Your task to perform on an android device: Empty the shopping cart on amazon. Add "rayovac triple a" to the cart on amazon, then select checkout. Image 0: 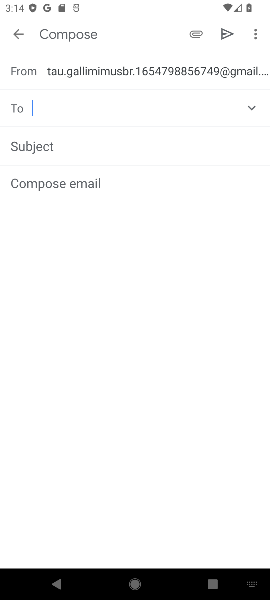
Step 0: press home button
Your task to perform on an android device: Empty the shopping cart on amazon. Add "rayovac triple a" to the cart on amazon, then select checkout. Image 1: 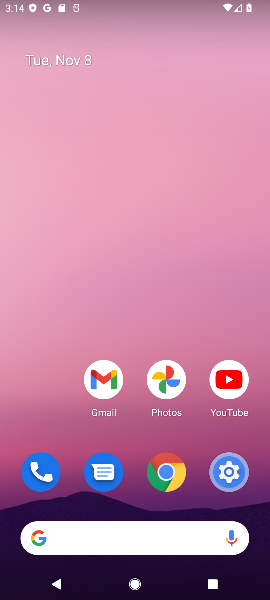
Step 1: click (100, 547)
Your task to perform on an android device: Empty the shopping cart on amazon. Add "rayovac triple a" to the cart on amazon, then select checkout. Image 2: 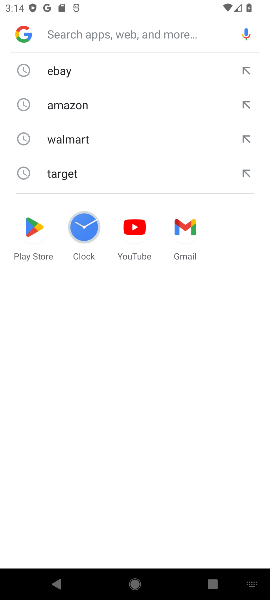
Step 2: click (65, 98)
Your task to perform on an android device: Empty the shopping cart on amazon. Add "rayovac triple a" to the cart on amazon, then select checkout. Image 3: 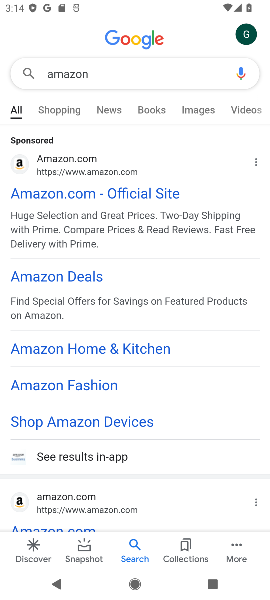
Step 3: click (50, 192)
Your task to perform on an android device: Empty the shopping cart on amazon. Add "rayovac triple a" to the cart on amazon, then select checkout. Image 4: 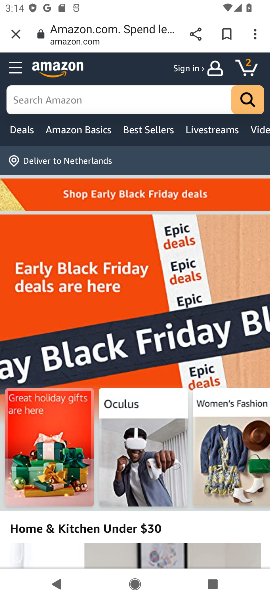
Step 4: click (108, 94)
Your task to perform on an android device: Empty the shopping cart on amazon. Add "rayovac triple a" to the cart on amazon, then select checkout. Image 5: 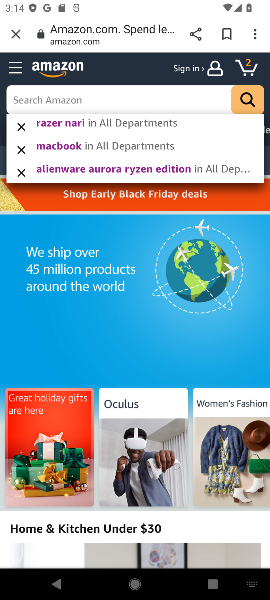
Step 5: type "rayoac"
Your task to perform on an android device: Empty the shopping cart on amazon. Add "rayovac triple a" to the cart on amazon, then select checkout. Image 6: 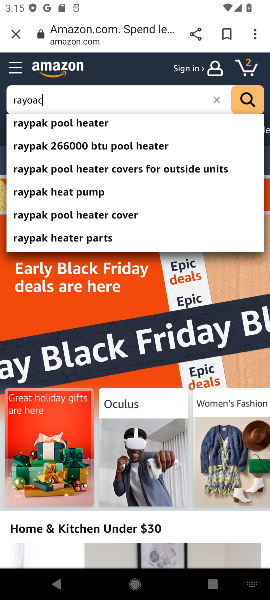
Step 6: click (250, 105)
Your task to perform on an android device: Empty the shopping cart on amazon. Add "rayovac triple a" to the cart on amazon, then select checkout. Image 7: 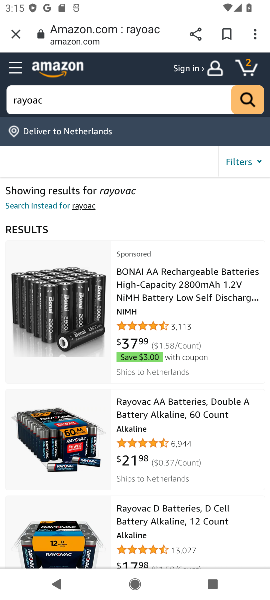
Step 7: task complete